Your task to perform on an android device: Open Yahoo.com Image 0: 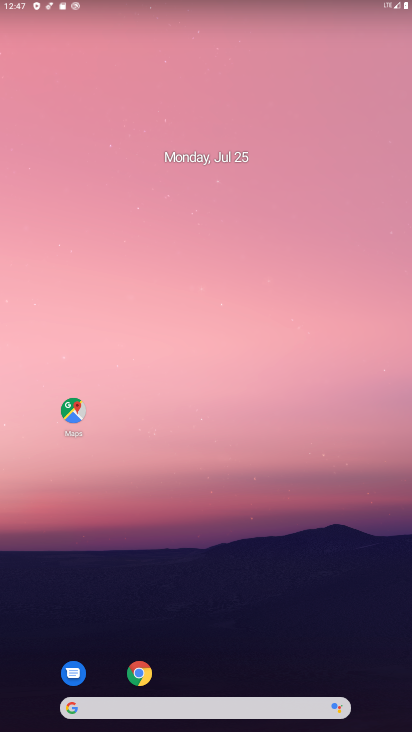
Step 0: click (218, 712)
Your task to perform on an android device: Open Yahoo.com Image 1: 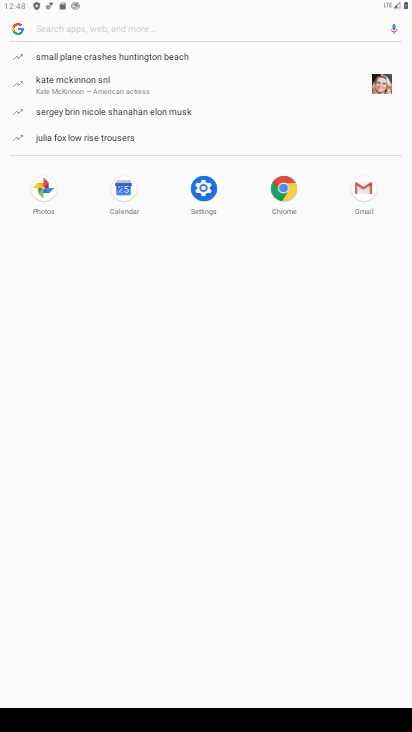
Step 1: type "yahoo.com"
Your task to perform on an android device: Open Yahoo.com Image 2: 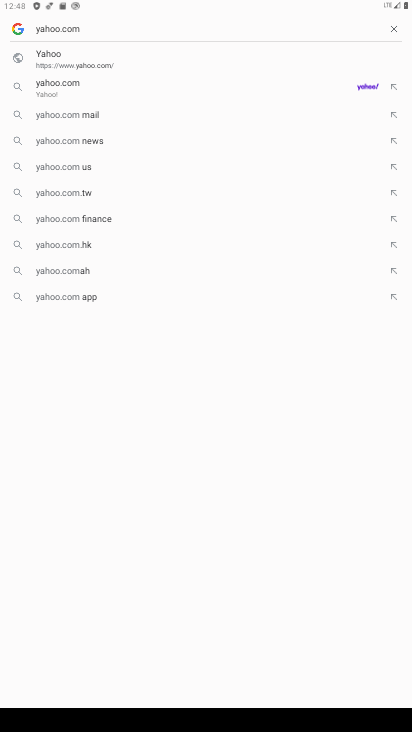
Step 2: click (111, 70)
Your task to perform on an android device: Open Yahoo.com Image 3: 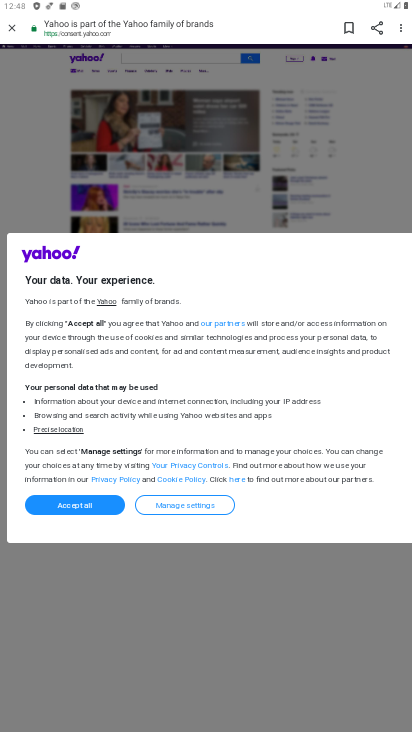
Step 3: task complete